Your task to perform on an android device: install app "DoorDash - Food Delivery" Image 0: 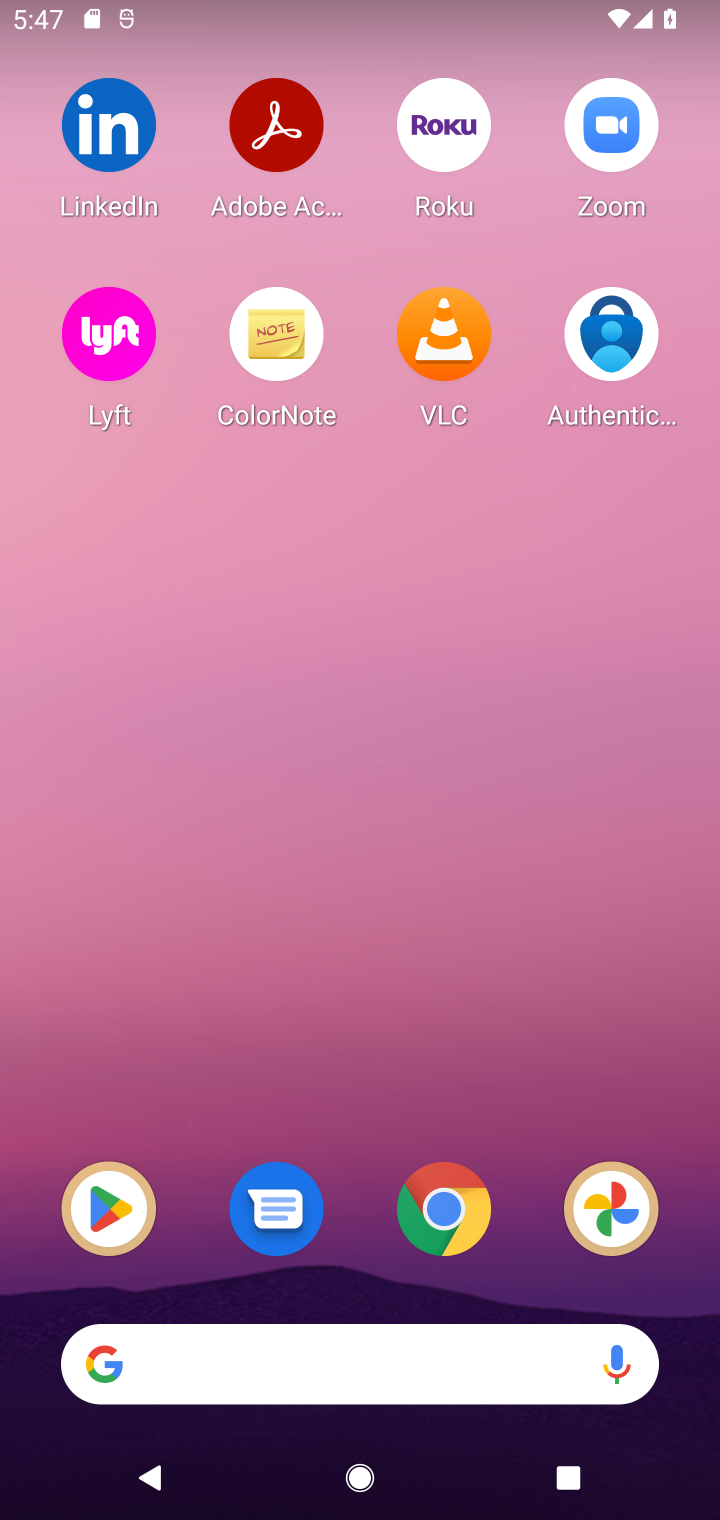
Step 0: click (68, 1220)
Your task to perform on an android device: install app "DoorDash - Food Delivery" Image 1: 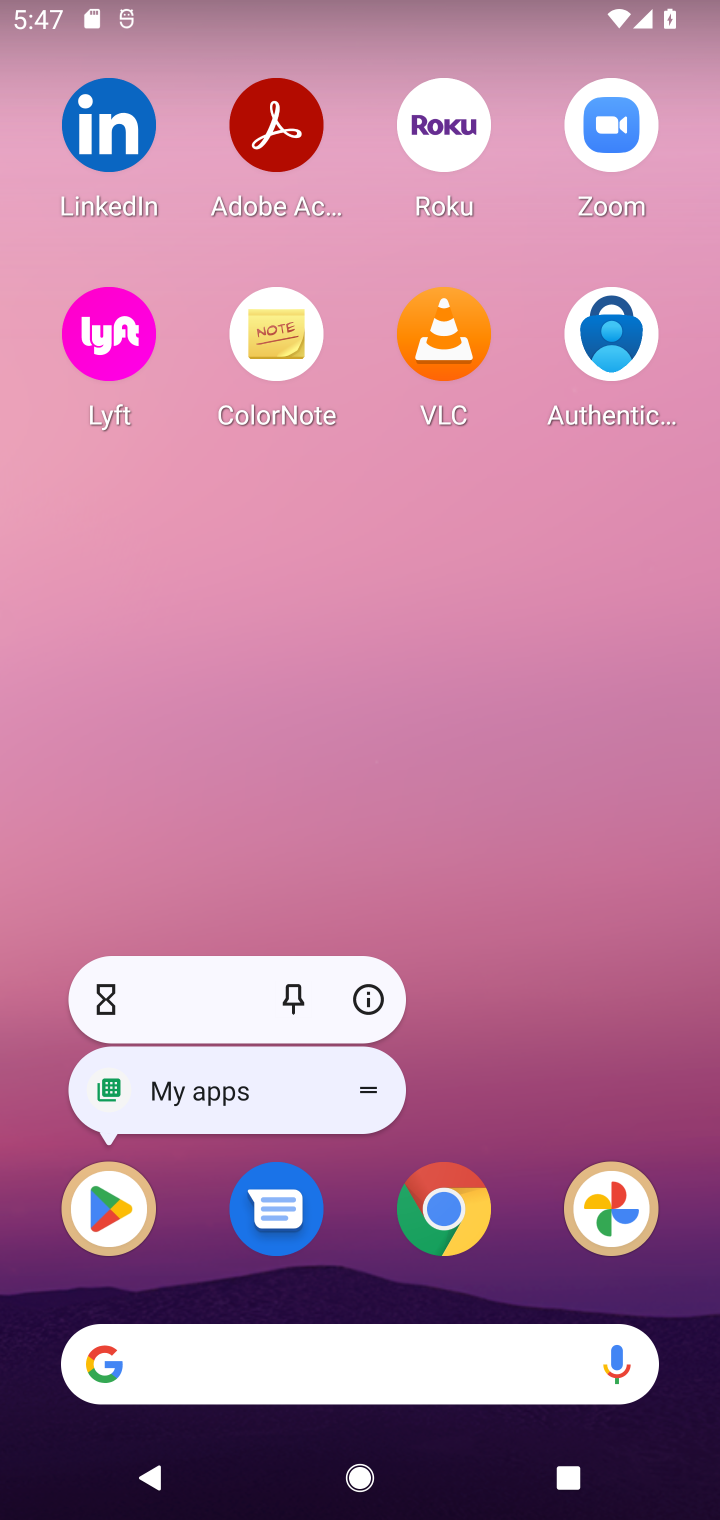
Step 1: click (85, 1218)
Your task to perform on an android device: install app "DoorDash - Food Delivery" Image 2: 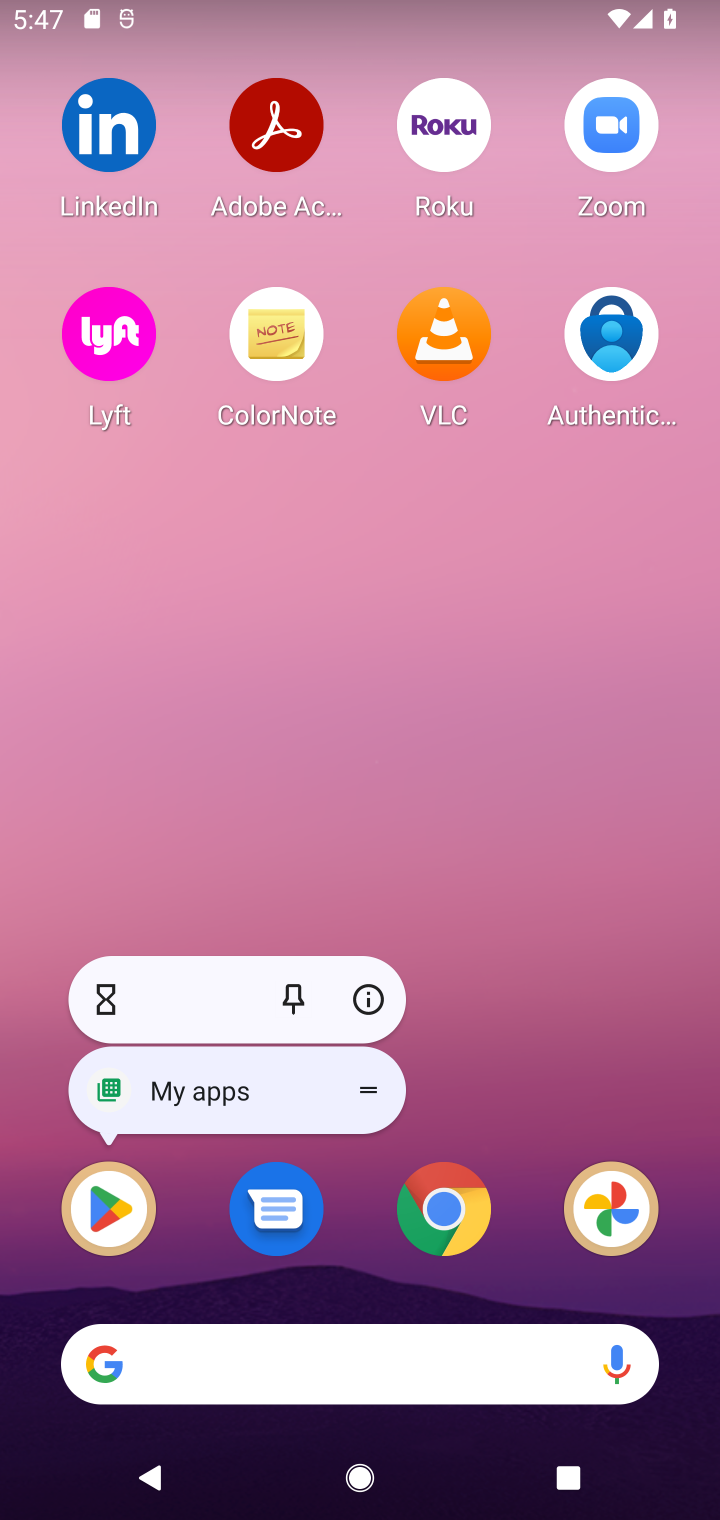
Step 2: click (85, 1218)
Your task to perform on an android device: install app "DoorDash - Food Delivery" Image 3: 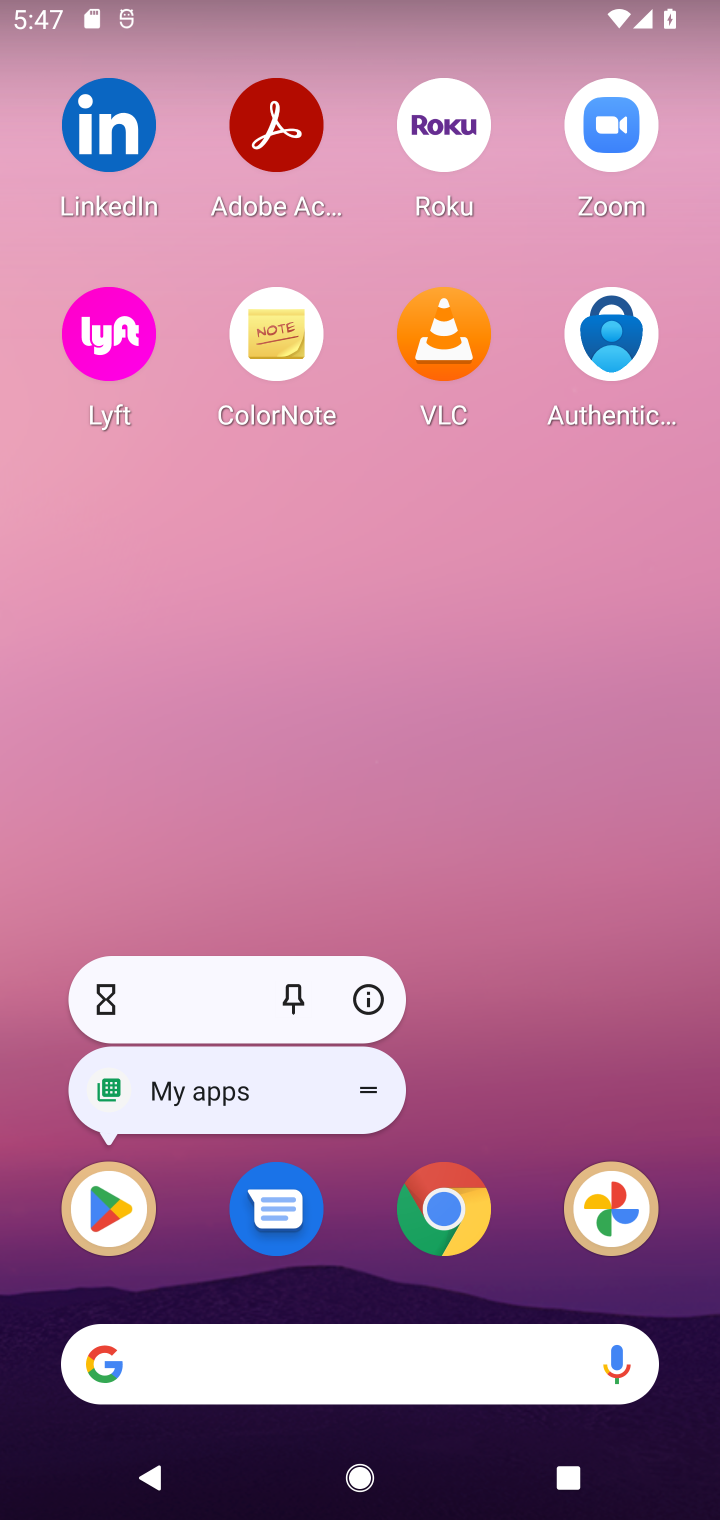
Step 3: click (98, 1218)
Your task to perform on an android device: install app "DoorDash - Food Delivery" Image 4: 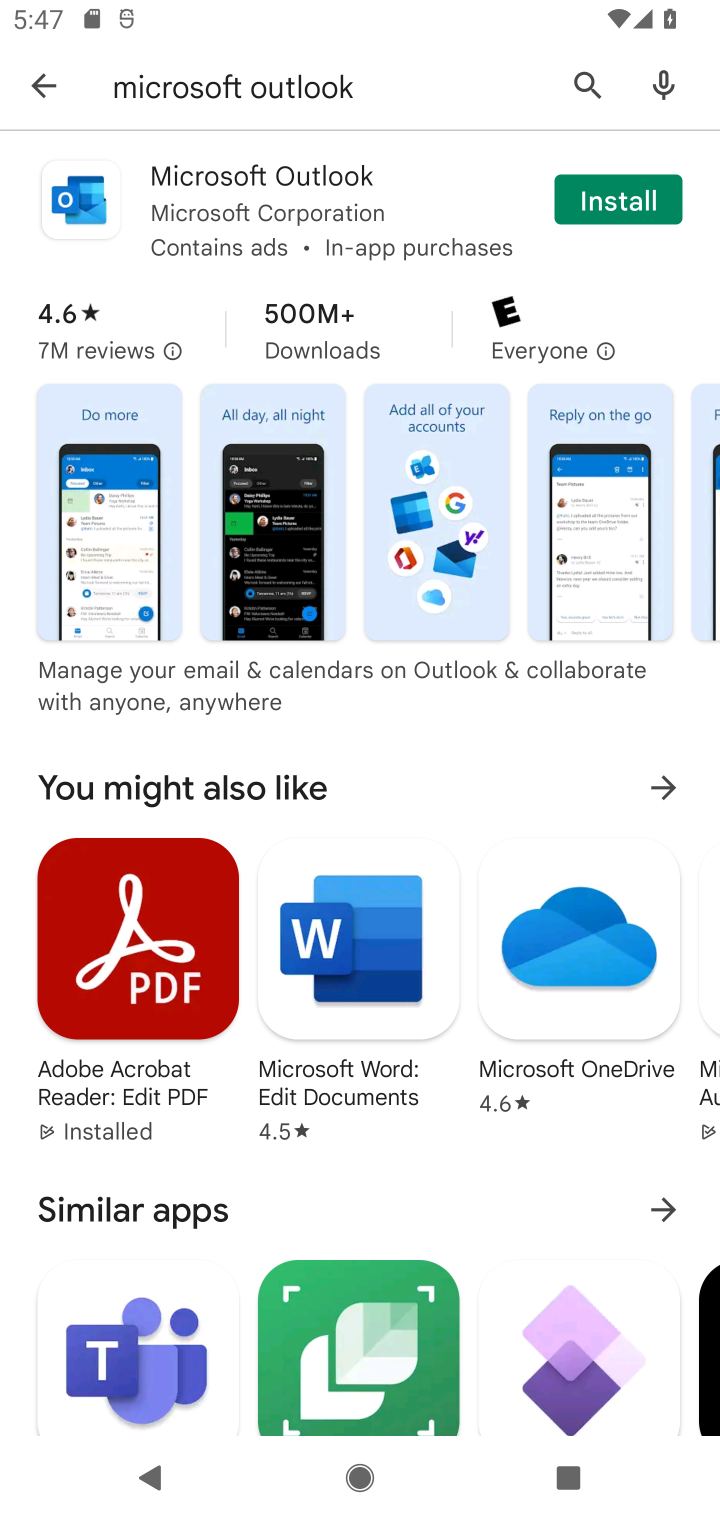
Step 4: click (592, 78)
Your task to perform on an android device: install app "DoorDash - Food Delivery" Image 5: 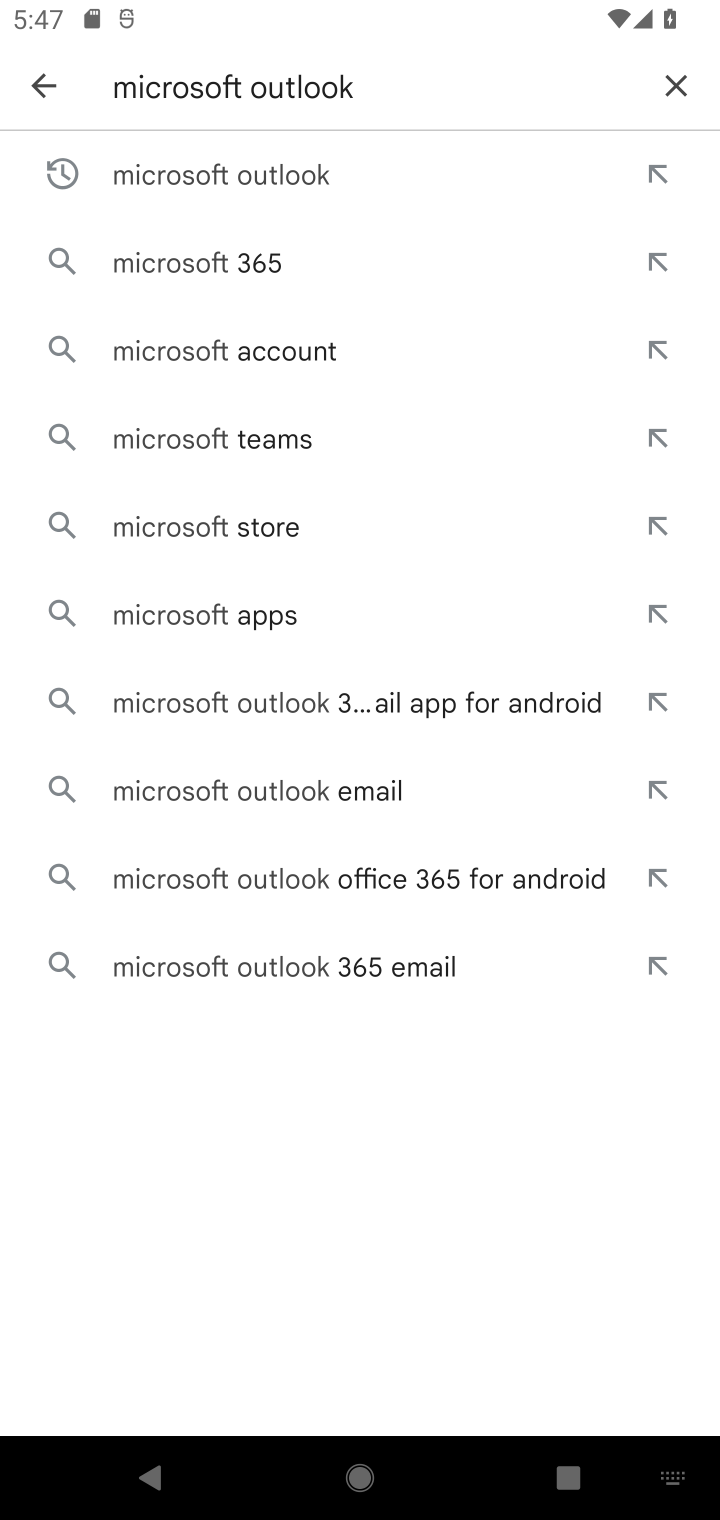
Step 5: click (674, 89)
Your task to perform on an android device: install app "DoorDash - Food Delivery" Image 6: 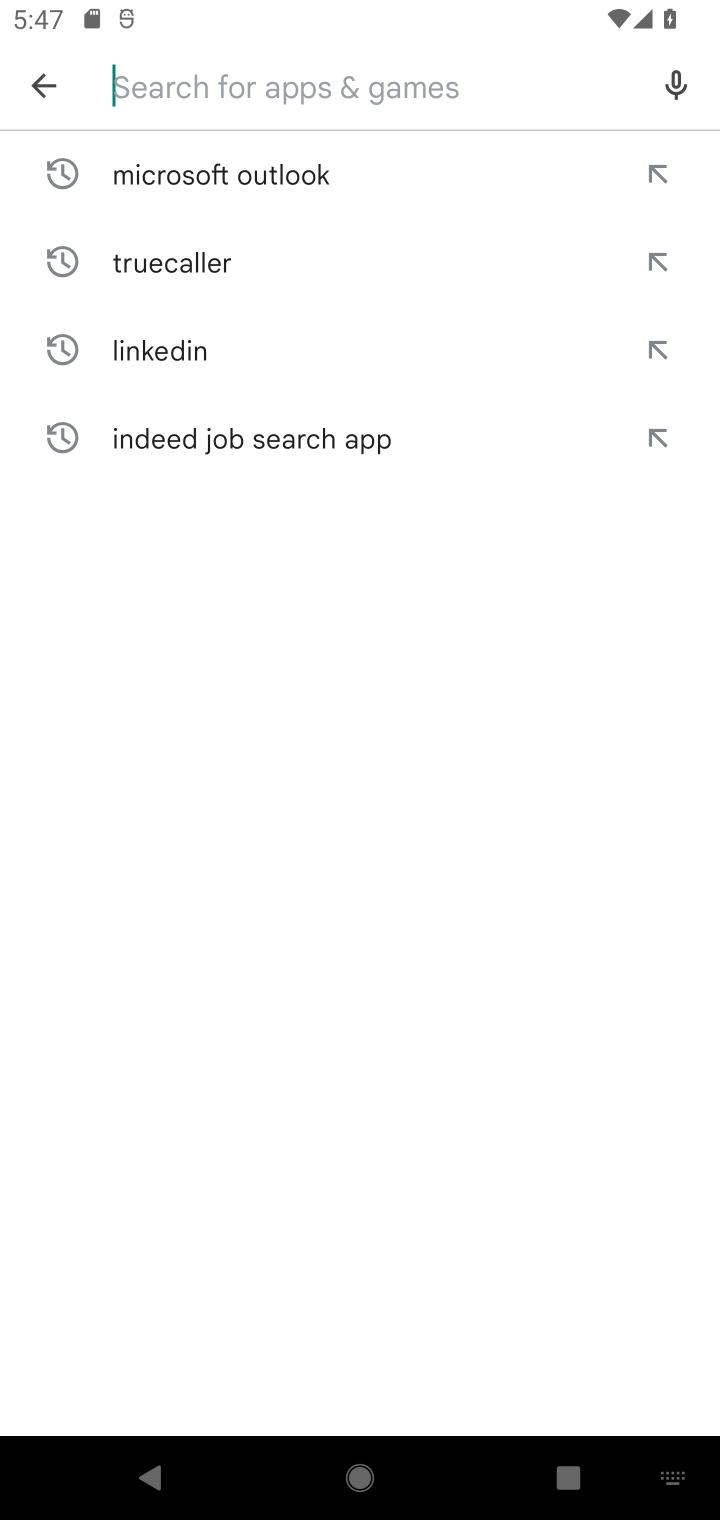
Step 6: type "DoorDash - Food Delivery"
Your task to perform on an android device: install app "DoorDash - Food Delivery" Image 7: 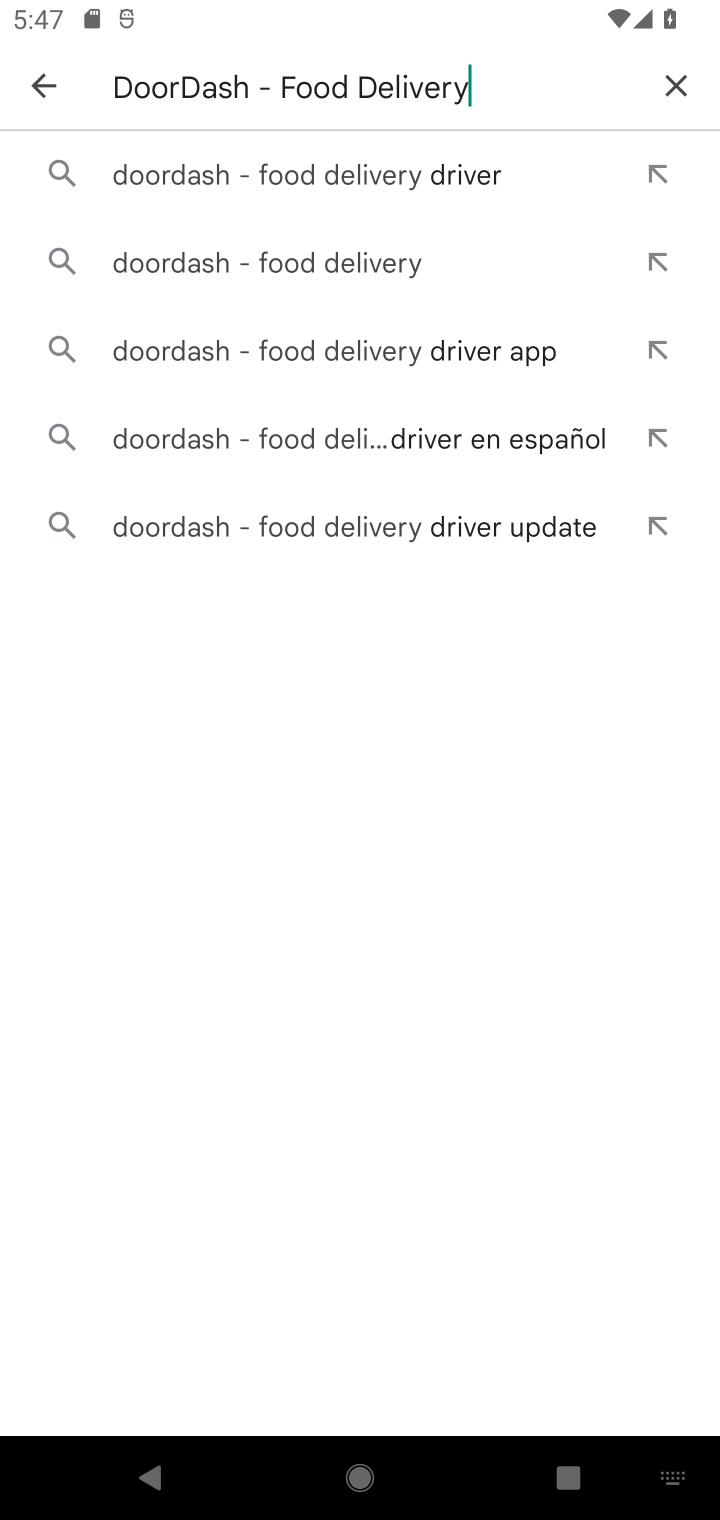
Step 7: click (297, 179)
Your task to perform on an android device: install app "DoorDash - Food Delivery" Image 8: 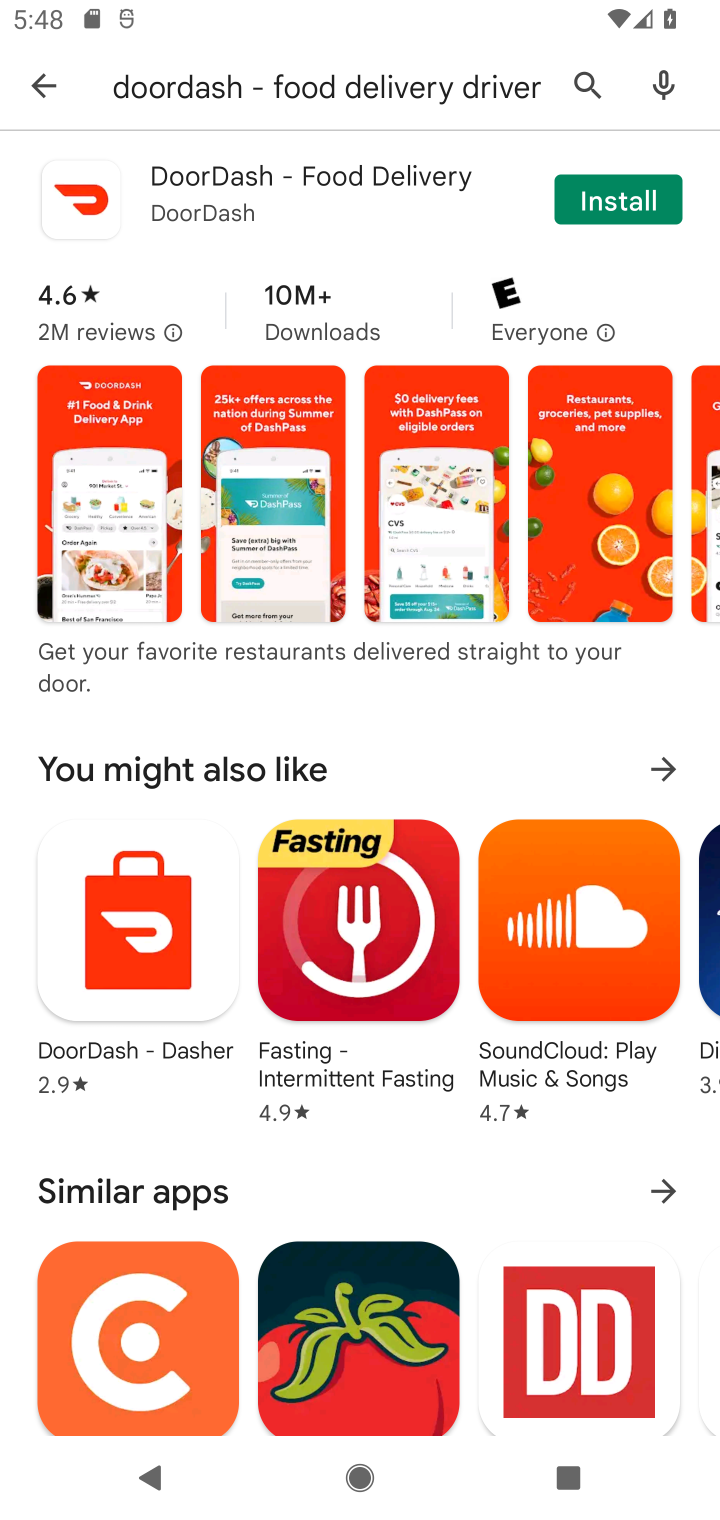
Step 8: click (627, 194)
Your task to perform on an android device: install app "DoorDash - Food Delivery" Image 9: 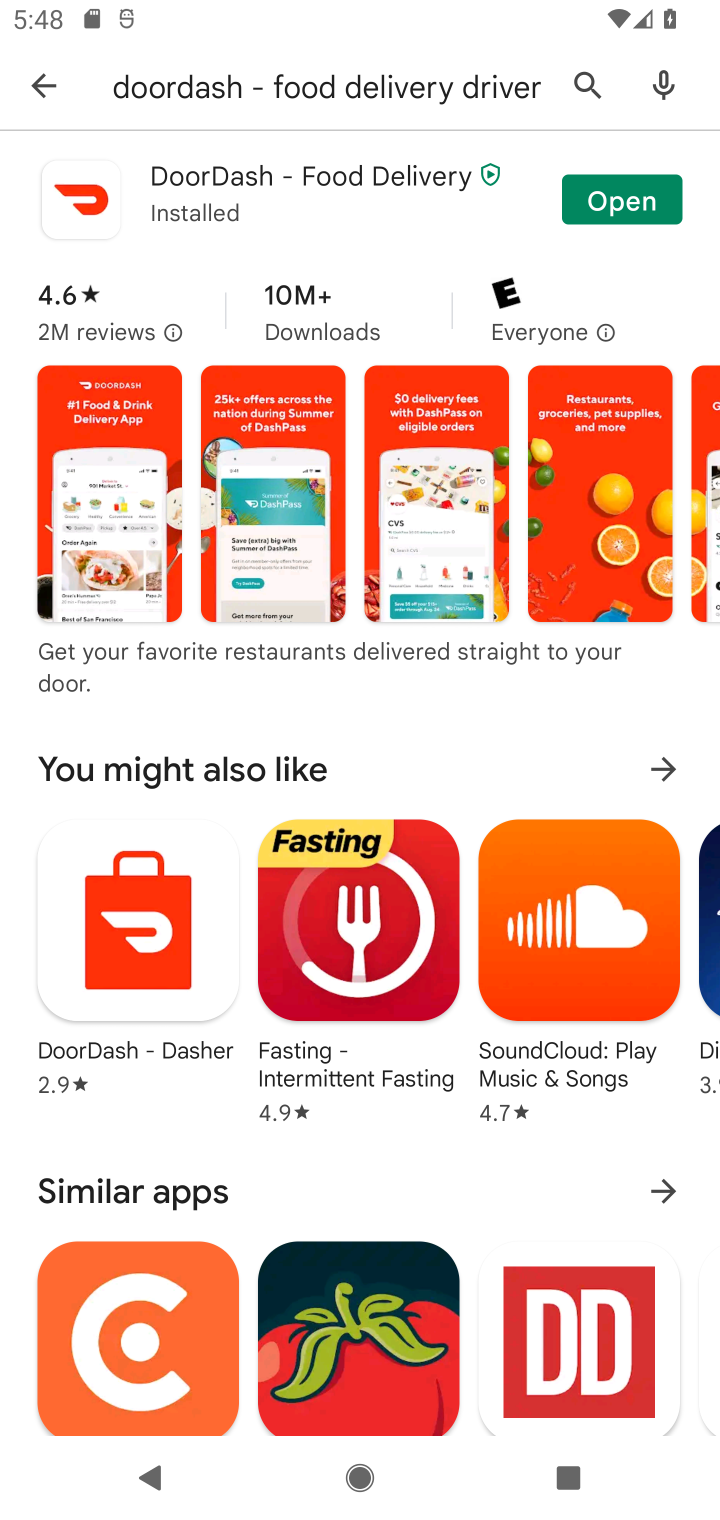
Step 9: task complete